Your task to perform on an android device: toggle priority inbox in the gmail app Image 0: 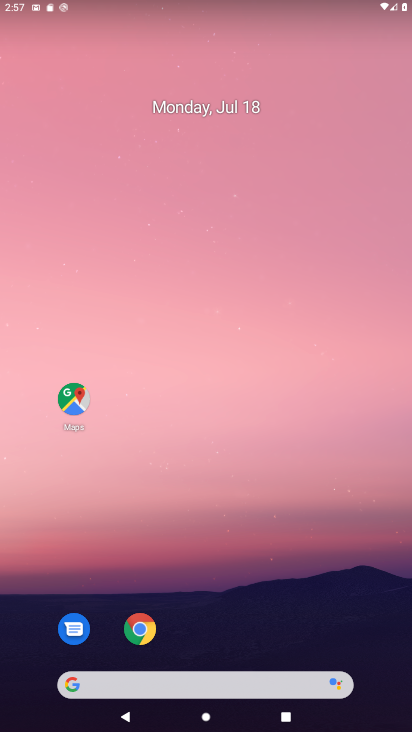
Step 0: drag from (342, 590) to (342, 94)
Your task to perform on an android device: toggle priority inbox in the gmail app Image 1: 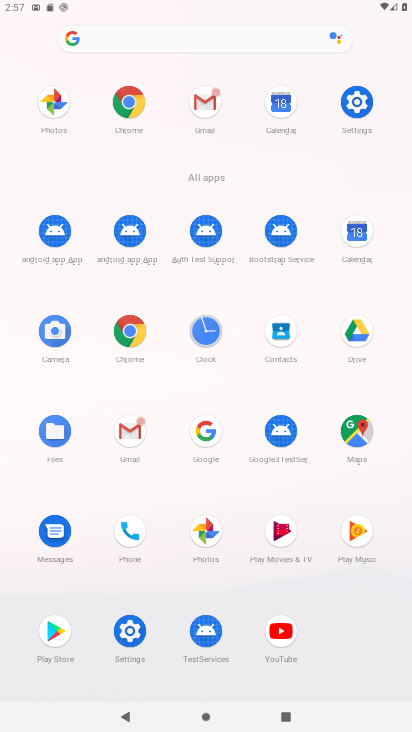
Step 1: click (127, 427)
Your task to perform on an android device: toggle priority inbox in the gmail app Image 2: 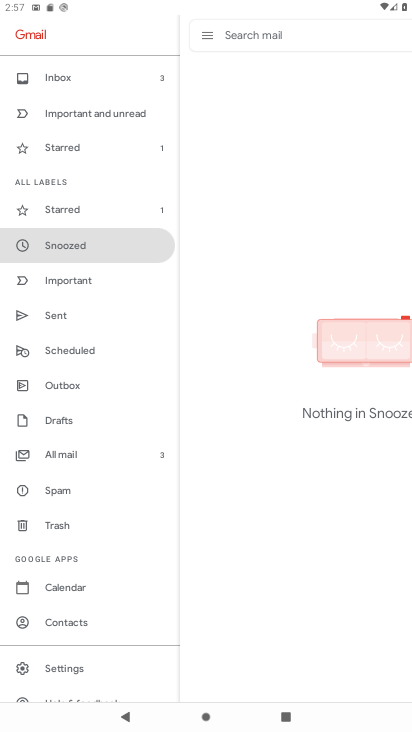
Step 2: click (72, 667)
Your task to perform on an android device: toggle priority inbox in the gmail app Image 3: 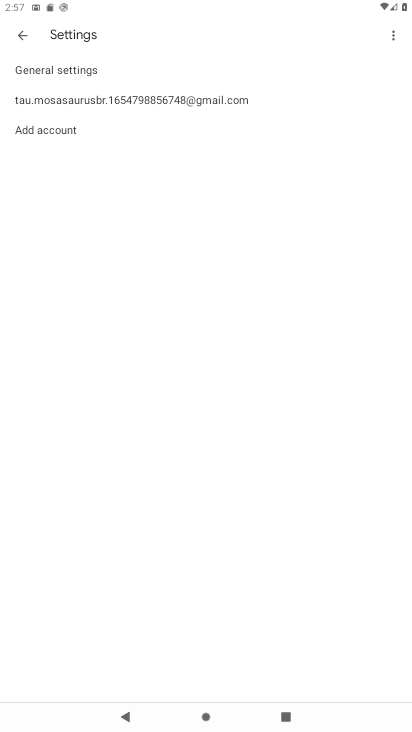
Step 3: click (175, 99)
Your task to perform on an android device: toggle priority inbox in the gmail app Image 4: 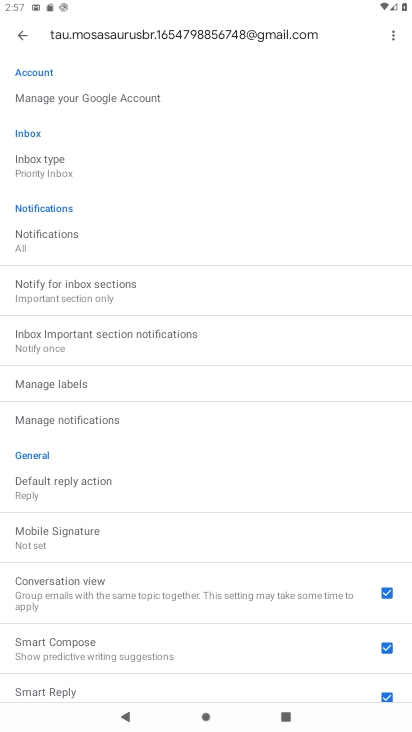
Step 4: drag from (253, 304) to (261, 267)
Your task to perform on an android device: toggle priority inbox in the gmail app Image 5: 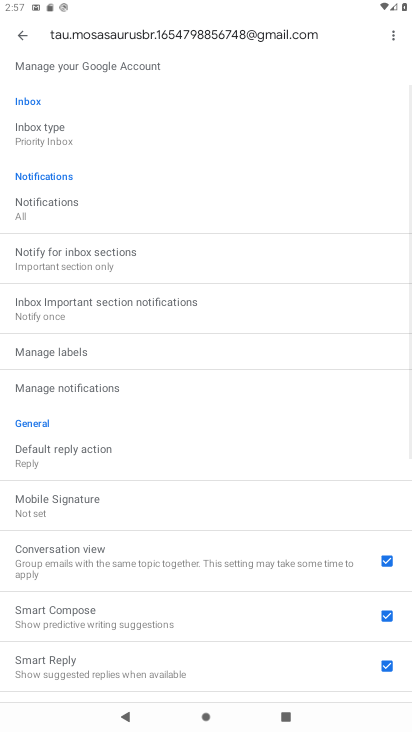
Step 5: drag from (276, 348) to (284, 304)
Your task to perform on an android device: toggle priority inbox in the gmail app Image 6: 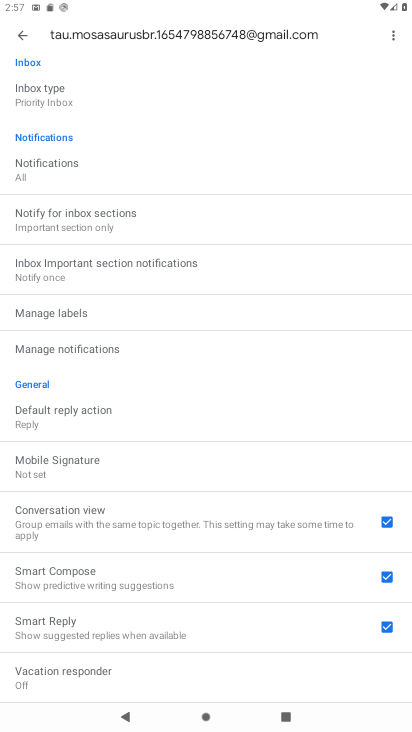
Step 6: drag from (288, 383) to (298, 317)
Your task to perform on an android device: toggle priority inbox in the gmail app Image 7: 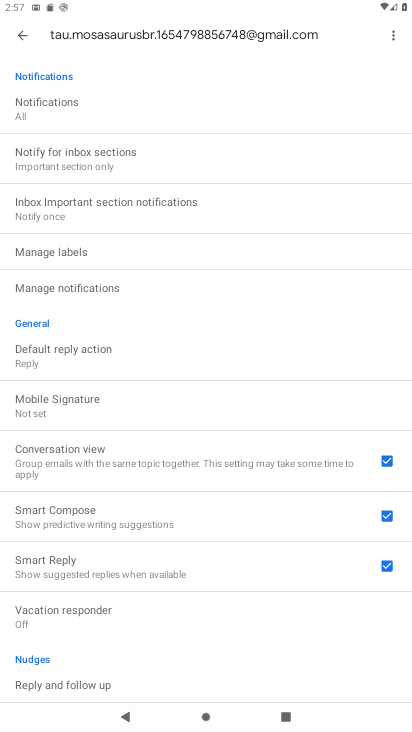
Step 7: drag from (314, 488) to (327, 254)
Your task to perform on an android device: toggle priority inbox in the gmail app Image 8: 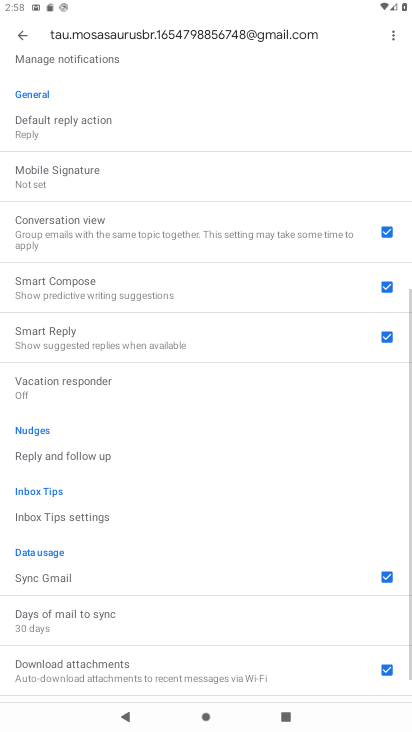
Step 8: drag from (318, 158) to (310, 261)
Your task to perform on an android device: toggle priority inbox in the gmail app Image 9: 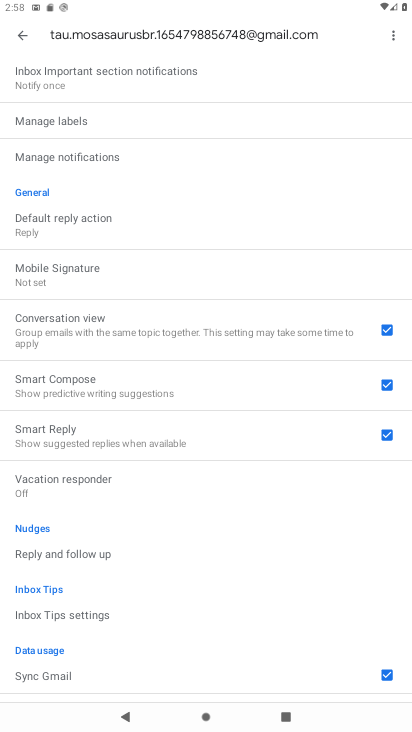
Step 9: drag from (310, 144) to (311, 261)
Your task to perform on an android device: toggle priority inbox in the gmail app Image 10: 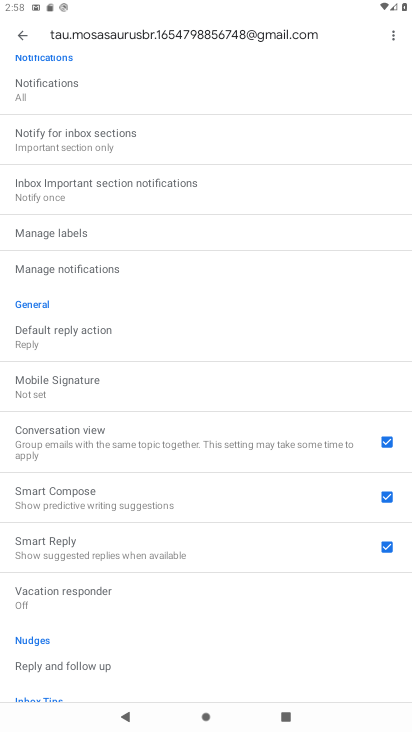
Step 10: drag from (307, 121) to (307, 261)
Your task to perform on an android device: toggle priority inbox in the gmail app Image 11: 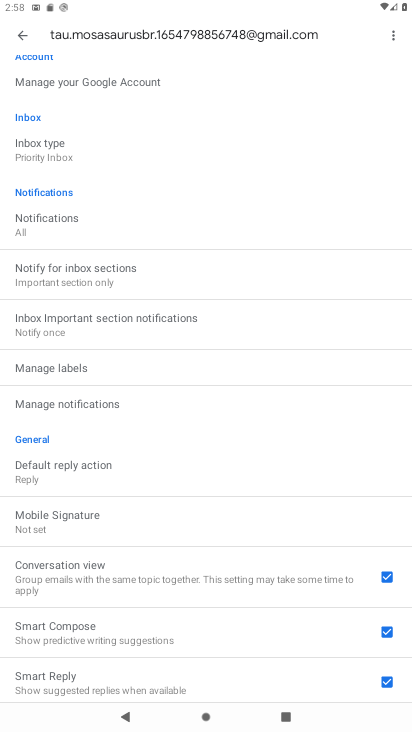
Step 11: drag from (288, 108) to (290, 290)
Your task to perform on an android device: toggle priority inbox in the gmail app Image 12: 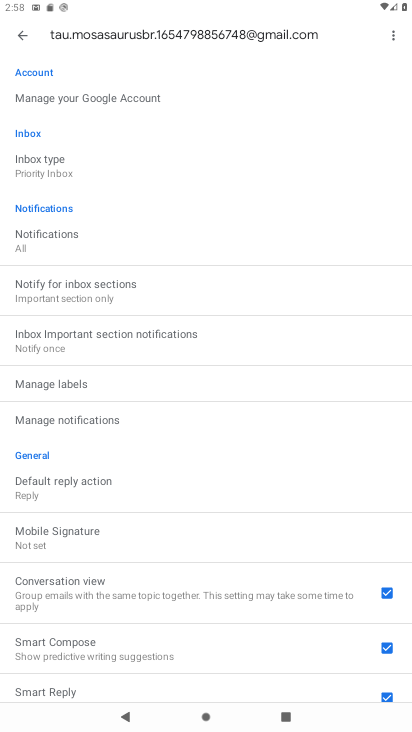
Step 12: click (89, 175)
Your task to perform on an android device: toggle priority inbox in the gmail app Image 13: 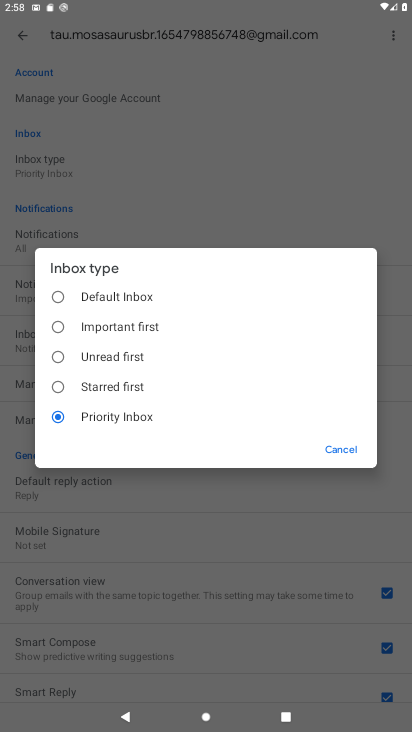
Step 13: task complete